Your task to perform on an android device: turn notification dots on Image 0: 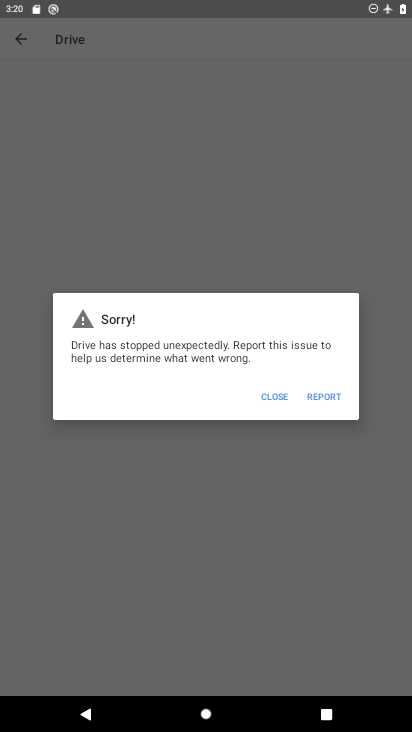
Step 0: press home button
Your task to perform on an android device: turn notification dots on Image 1: 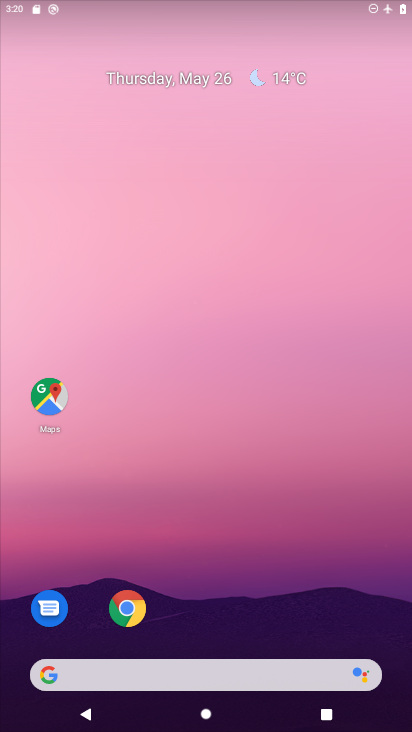
Step 1: drag from (299, 543) to (375, 0)
Your task to perform on an android device: turn notification dots on Image 2: 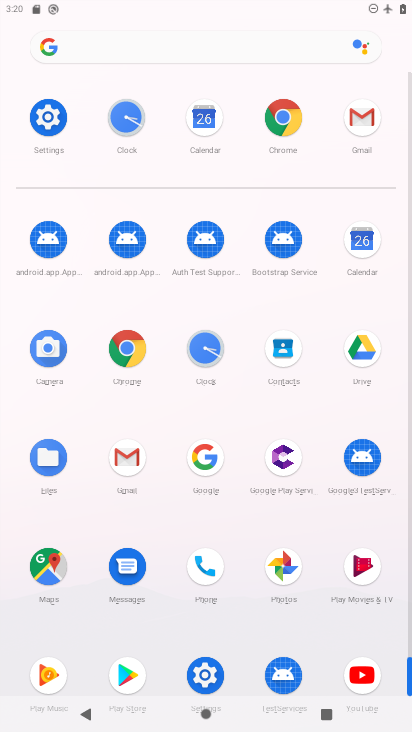
Step 2: click (55, 126)
Your task to perform on an android device: turn notification dots on Image 3: 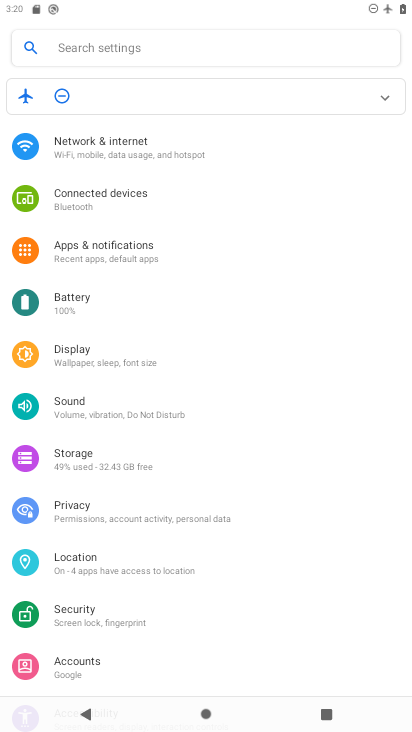
Step 3: click (138, 255)
Your task to perform on an android device: turn notification dots on Image 4: 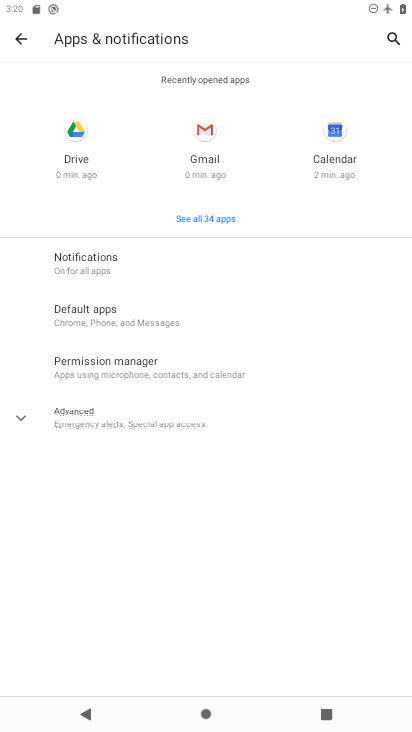
Step 4: click (59, 413)
Your task to perform on an android device: turn notification dots on Image 5: 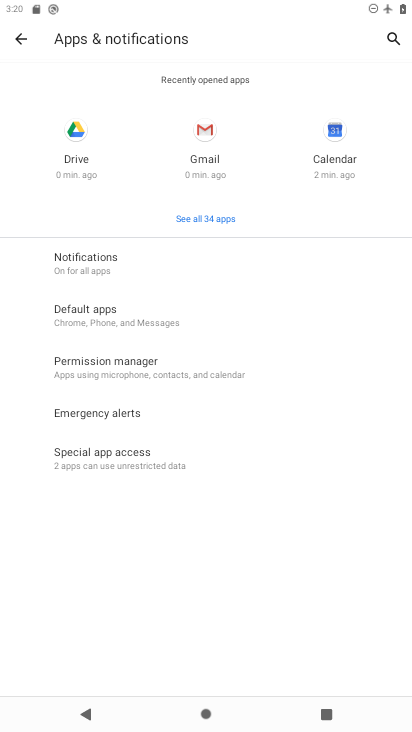
Step 5: click (80, 275)
Your task to perform on an android device: turn notification dots on Image 6: 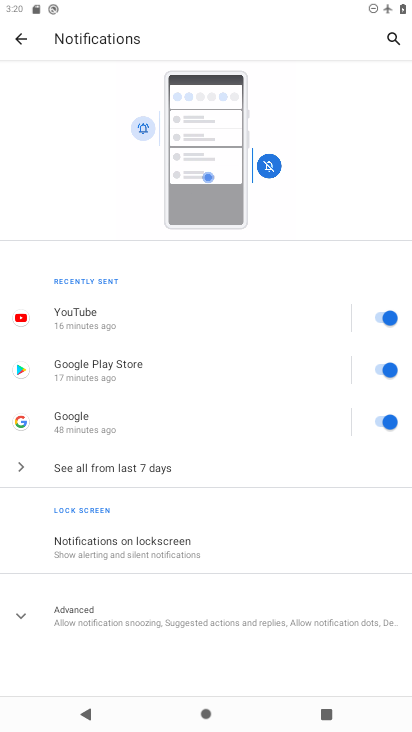
Step 6: drag from (234, 623) to (285, 234)
Your task to perform on an android device: turn notification dots on Image 7: 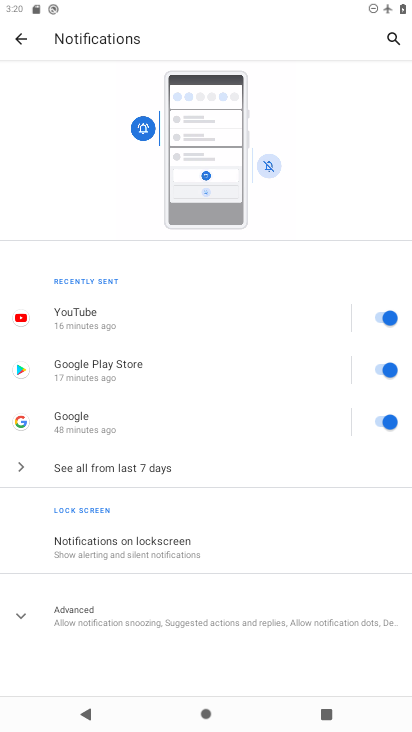
Step 7: click (98, 545)
Your task to perform on an android device: turn notification dots on Image 8: 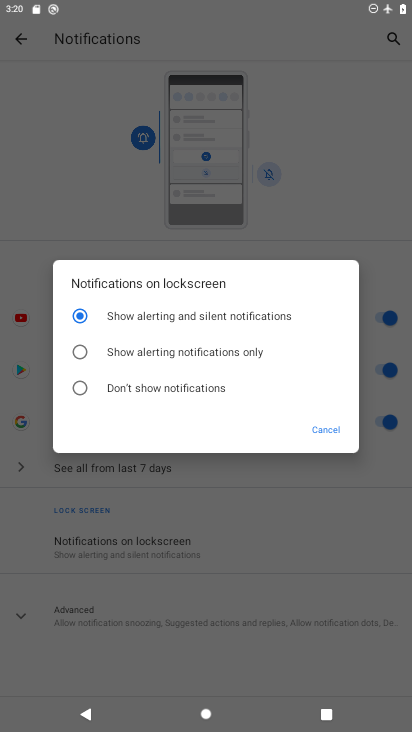
Step 8: click (330, 429)
Your task to perform on an android device: turn notification dots on Image 9: 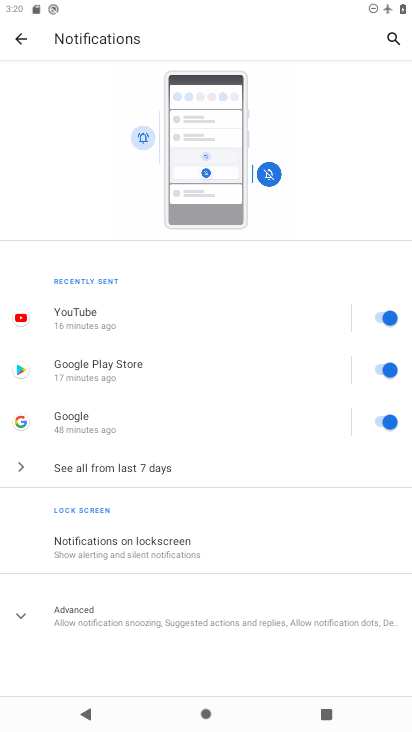
Step 9: click (131, 633)
Your task to perform on an android device: turn notification dots on Image 10: 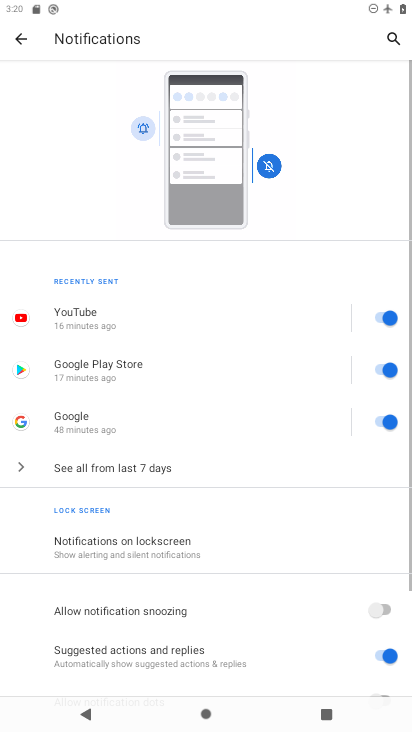
Step 10: task complete